Your task to perform on an android device: Search for a new foundation (skincare) product Image 0: 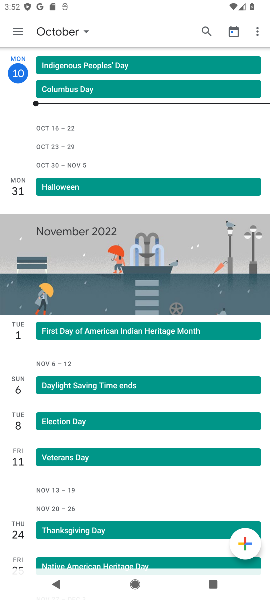
Step 0: drag from (93, 599) to (257, 508)
Your task to perform on an android device: Search for a new foundation (skincare) product Image 1: 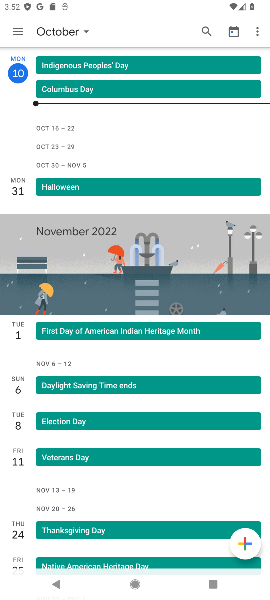
Step 1: press home button
Your task to perform on an android device: Search for a new foundation (skincare) product Image 2: 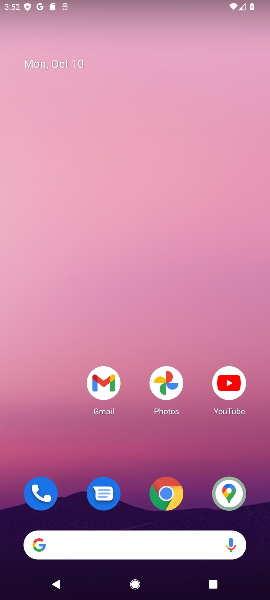
Step 2: click (116, 554)
Your task to perform on an android device: Search for a new foundation (skincare) product Image 3: 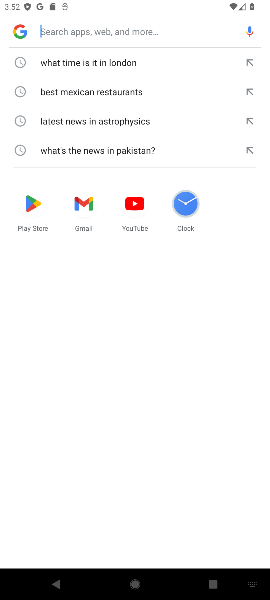
Step 3: type "new foundation (skincare) product"
Your task to perform on an android device: Search for a new foundation (skincare) product Image 4: 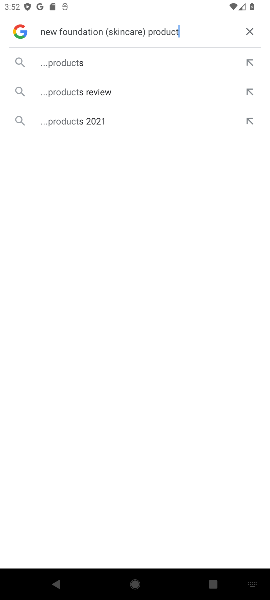
Step 4: click (144, 69)
Your task to perform on an android device: Search for a new foundation (skincare) product Image 5: 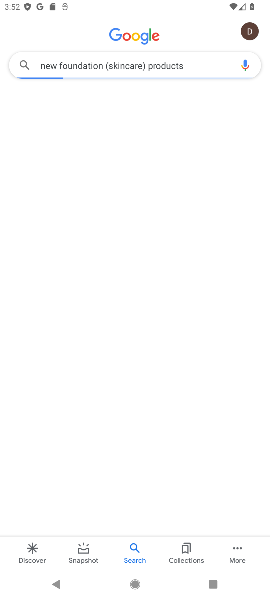
Step 5: task complete